Your task to perform on an android device: Check the weather Image 0: 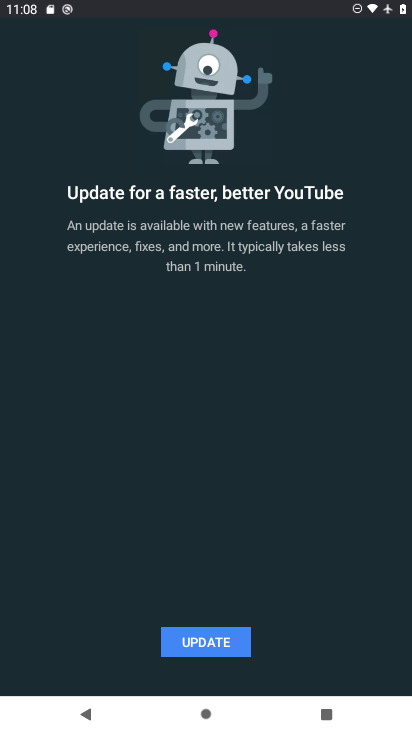
Step 0: press home button
Your task to perform on an android device: Check the weather Image 1: 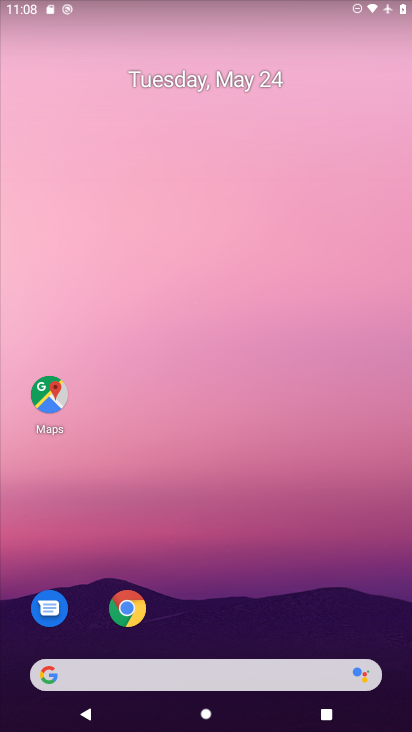
Step 1: drag from (14, 251) to (384, 270)
Your task to perform on an android device: Check the weather Image 2: 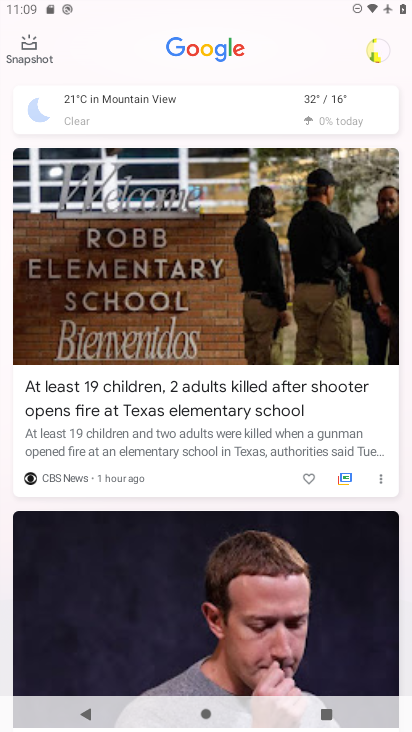
Step 2: click (335, 103)
Your task to perform on an android device: Check the weather Image 3: 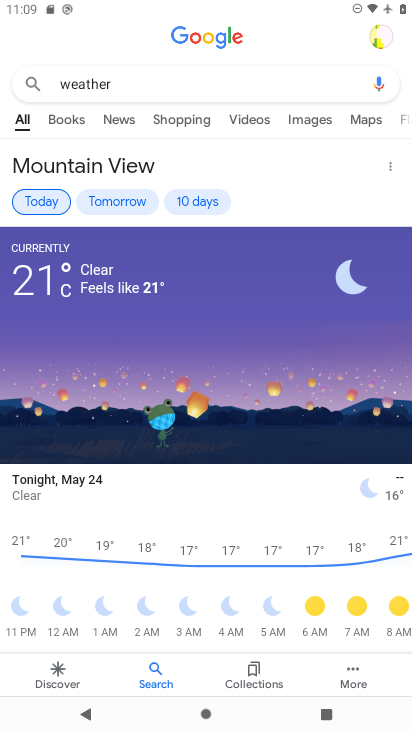
Step 3: task complete